Your task to perform on an android device: Open Chrome and go to the settings page Image 0: 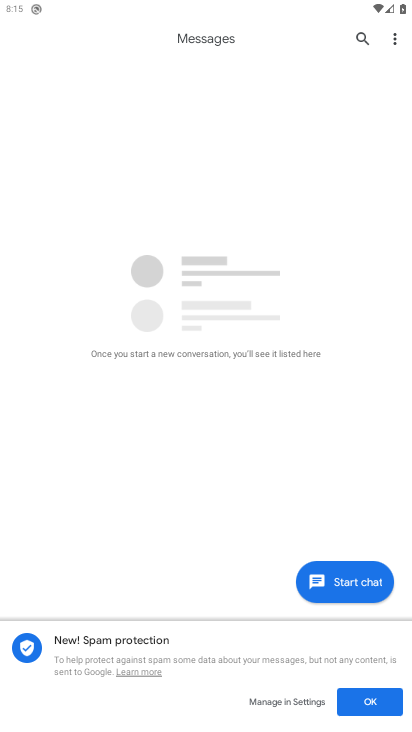
Step 0: press home button
Your task to perform on an android device: Open Chrome and go to the settings page Image 1: 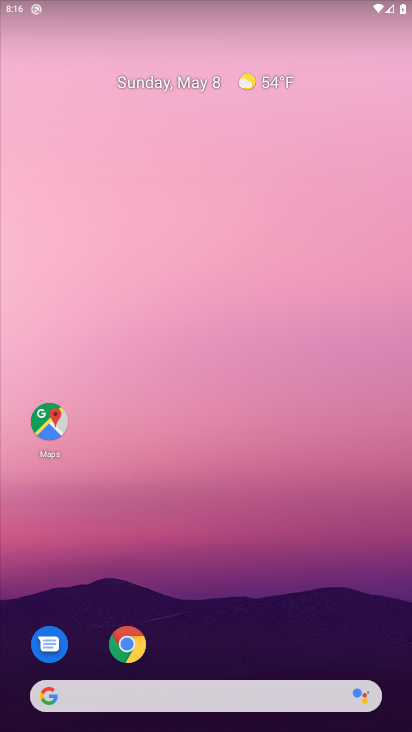
Step 1: click (135, 635)
Your task to perform on an android device: Open Chrome and go to the settings page Image 2: 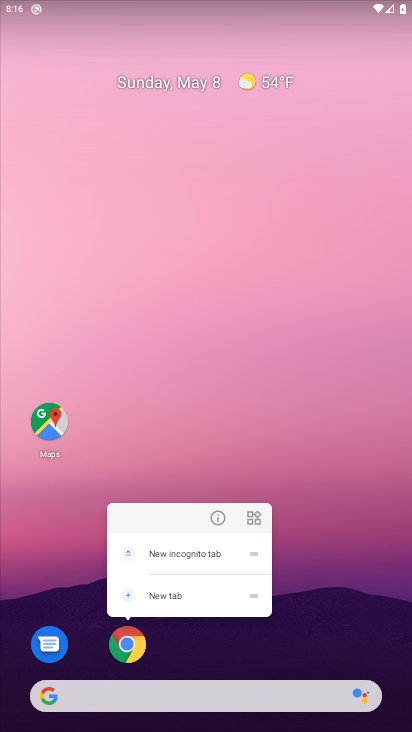
Step 2: click (125, 644)
Your task to perform on an android device: Open Chrome and go to the settings page Image 3: 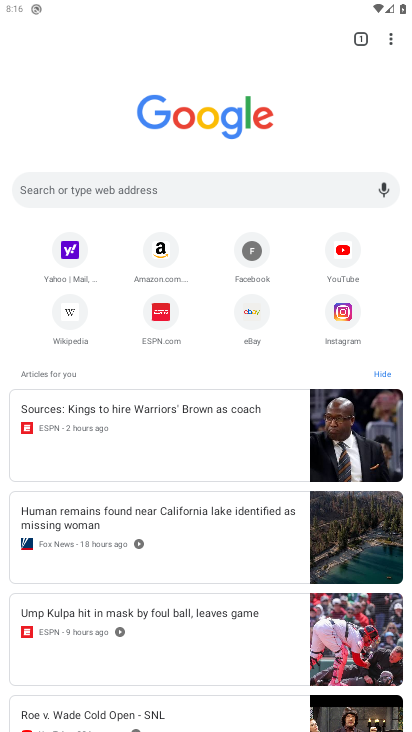
Step 3: click (387, 37)
Your task to perform on an android device: Open Chrome and go to the settings page Image 4: 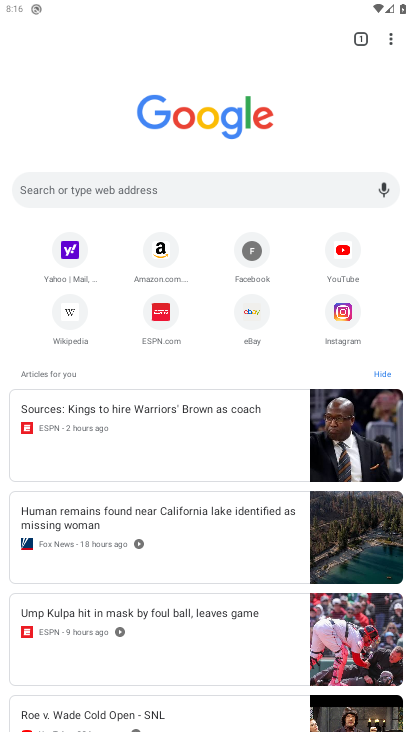
Step 4: click (390, 40)
Your task to perform on an android device: Open Chrome and go to the settings page Image 5: 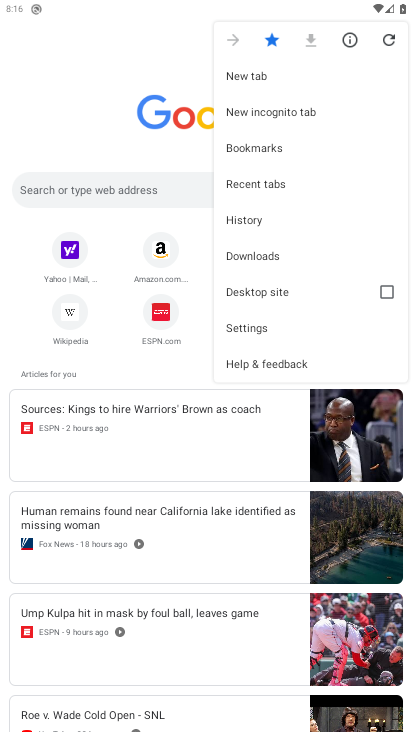
Step 5: click (237, 327)
Your task to perform on an android device: Open Chrome and go to the settings page Image 6: 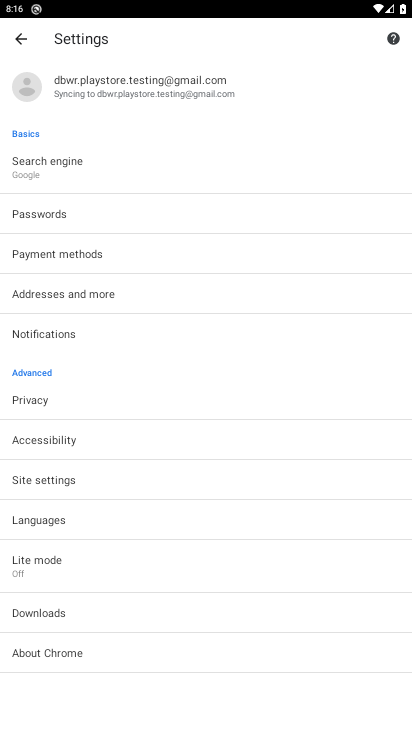
Step 6: task complete